Your task to perform on an android device: Open Google Chrome and click the shortcut for Amazon.com Image 0: 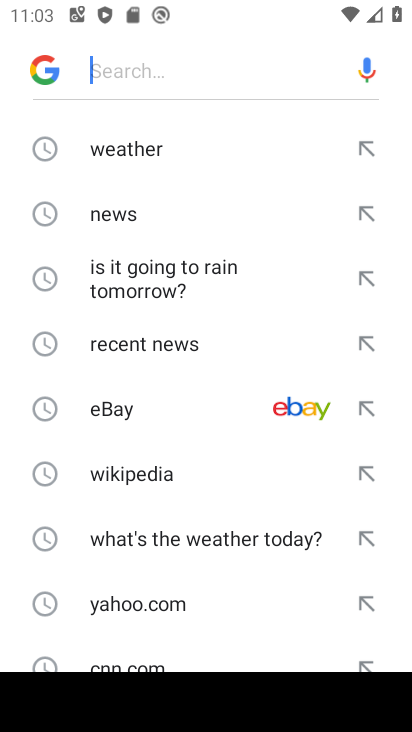
Step 0: press back button
Your task to perform on an android device: Open Google Chrome and click the shortcut for Amazon.com Image 1: 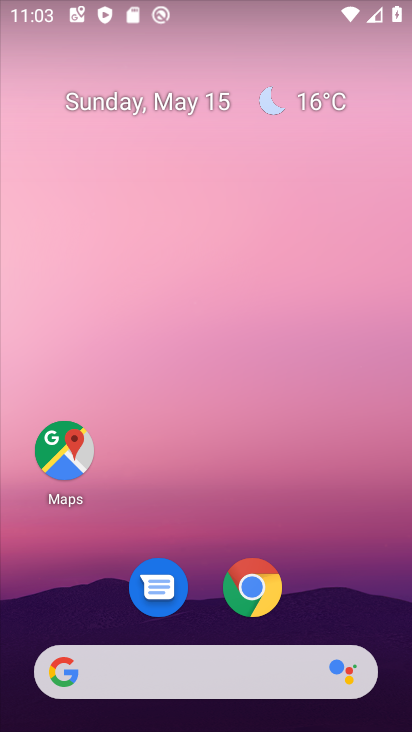
Step 1: click (252, 584)
Your task to perform on an android device: Open Google Chrome and click the shortcut for Amazon.com Image 2: 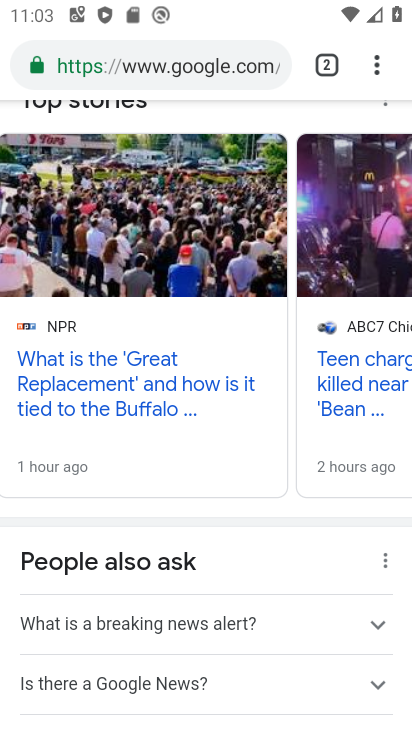
Step 2: click (195, 69)
Your task to perform on an android device: Open Google Chrome and click the shortcut for Amazon.com Image 3: 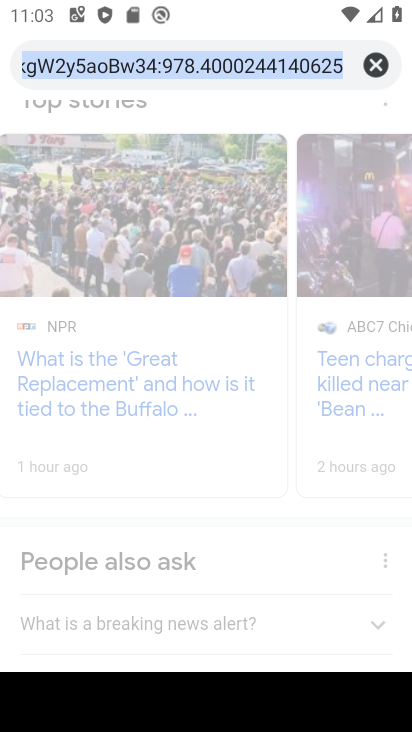
Step 3: click (369, 64)
Your task to perform on an android device: Open Google Chrome and click the shortcut for Amazon.com Image 4: 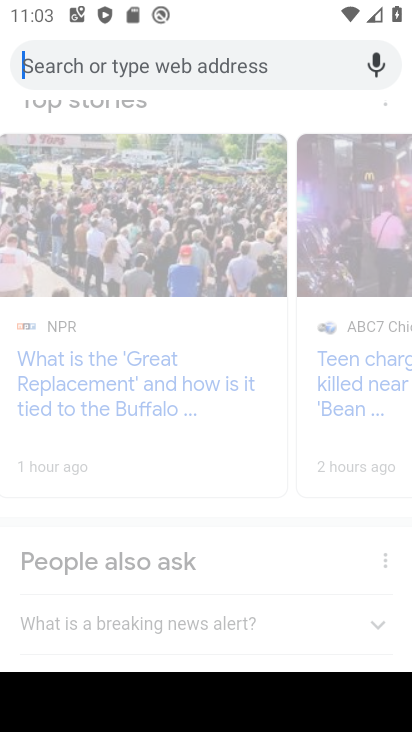
Step 4: type "Amazon.com"
Your task to perform on an android device: Open Google Chrome and click the shortcut for Amazon.com Image 5: 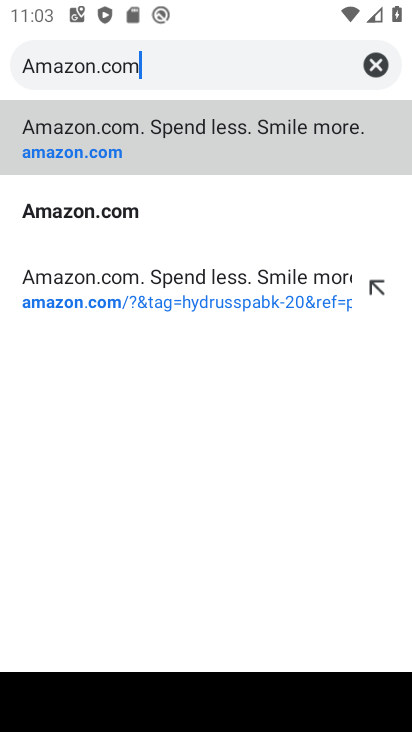
Step 5: type ""
Your task to perform on an android device: Open Google Chrome and click the shortcut for Amazon.com Image 6: 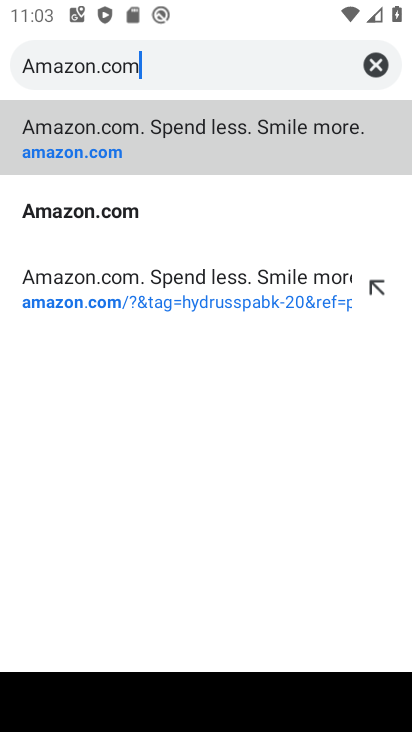
Step 6: click (155, 116)
Your task to perform on an android device: Open Google Chrome and click the shortcut for Amazon.com Image 7: 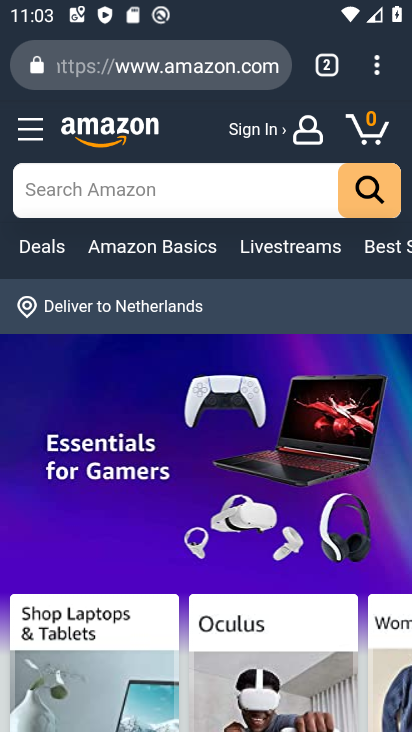
Step 7: drag from (375, 67) to (245, 609)
Your task to perform on an android device: Open Google Chrome and click the shortcut for Amazon.com Image 8: 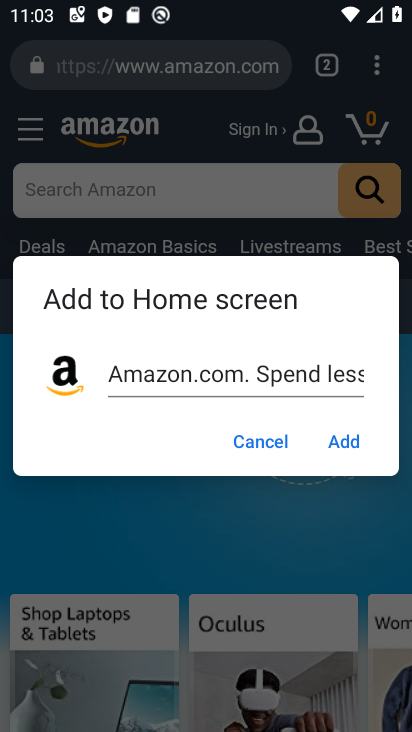
Step 8: click (351, 442)
Your task to perform on an android device: Open Google Chrome and click the shortcut for Amazon.com Image 9: 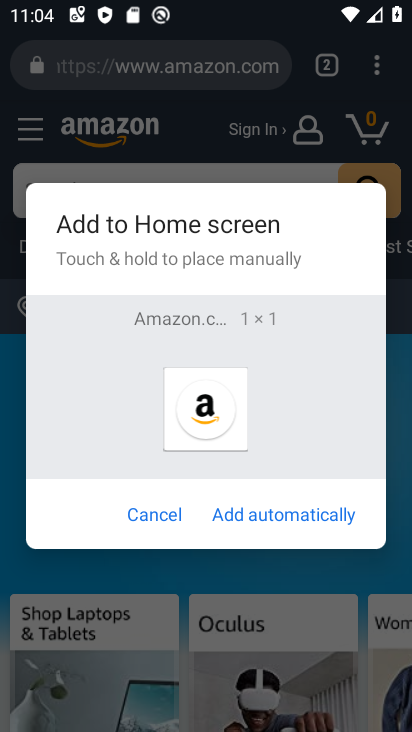
Step 9: click (285, 510)
Your task to perform on an android device: Open Google Chrome and click the shortcut for Amazon.com Image 10: 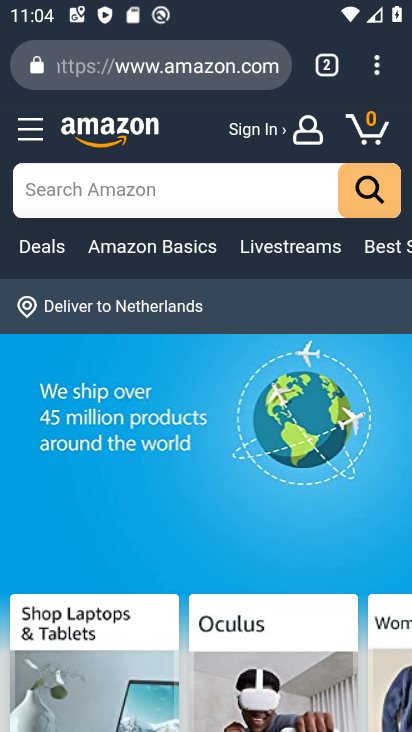
Step 10: task complete